Your task to perform on an android device: Open the phone app and click the voicemail tab. Image 0: 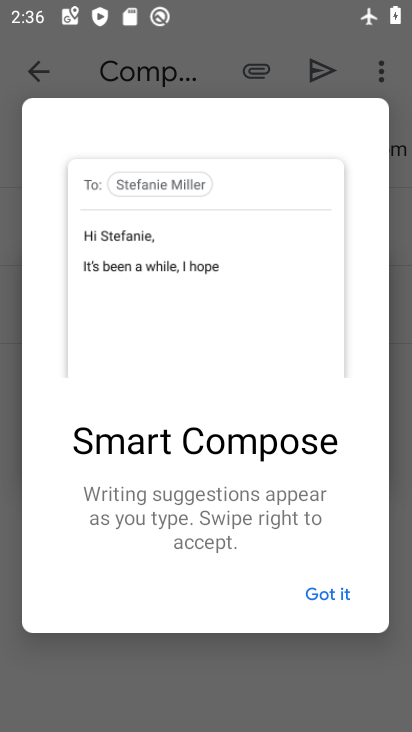
Step 0: press home button
Your task to perform on an android device: Open the phone app and click the voicemail tab. Image 1: 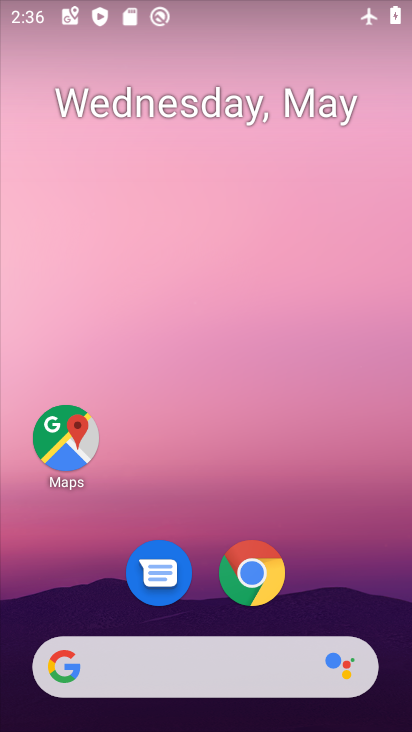
Step 1: drag from (331, 594) to (357, 109)
Your task to perform on an android device: Open the phone app and click the voicemail tab. Image 2: 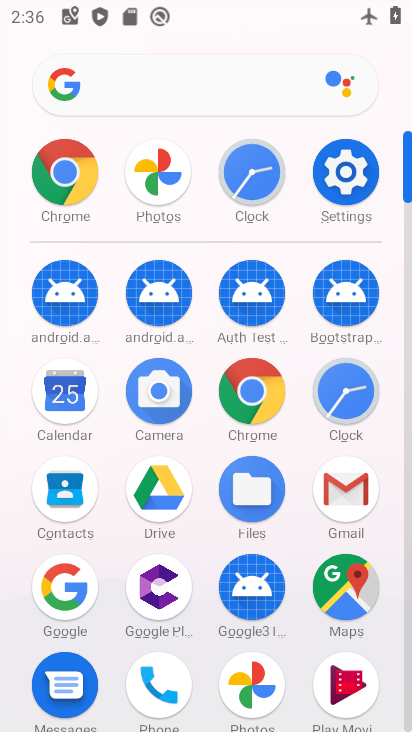
Step 2: click (160, 682)
Your task to perform on an android device: Open the phone app and click the voicemail tab. Image 3: 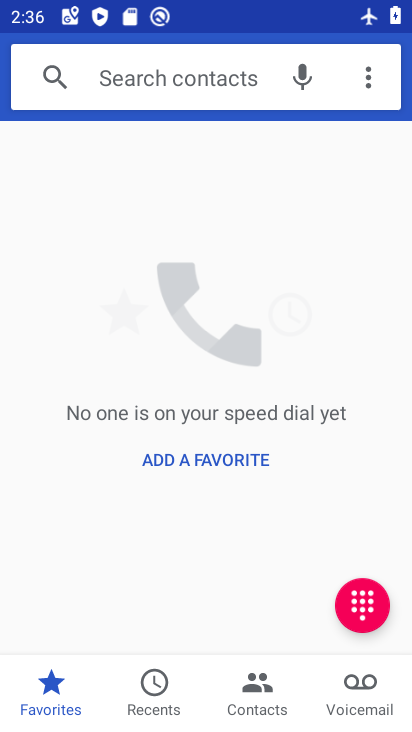
Step 3: click (358, 701)
Your task to perform on an android device: Open the phone app and click the voicemail tab. Image 4: 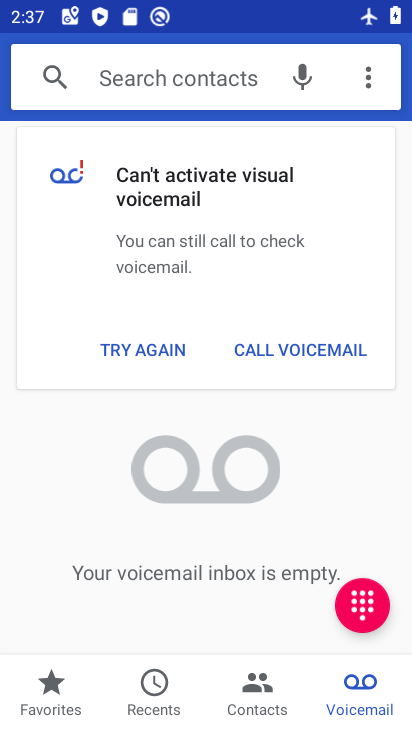
Step 4: task complete